Your task to perform on an android device: allow cookies in the chrome app Image 0: 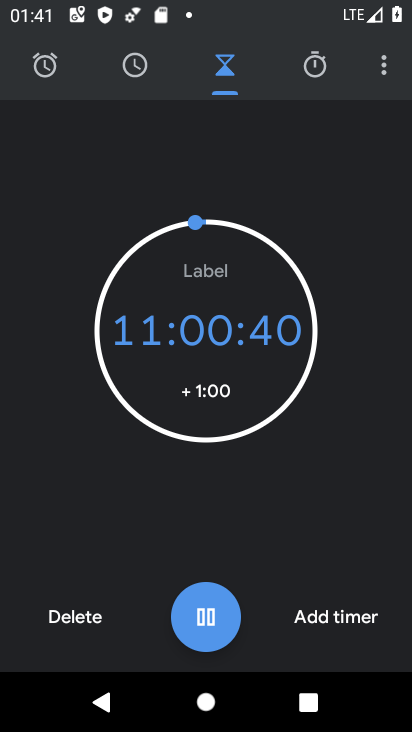
Step 0: press home button
Your task to perform on an android device: allow cookies in the chrome app Image 1: 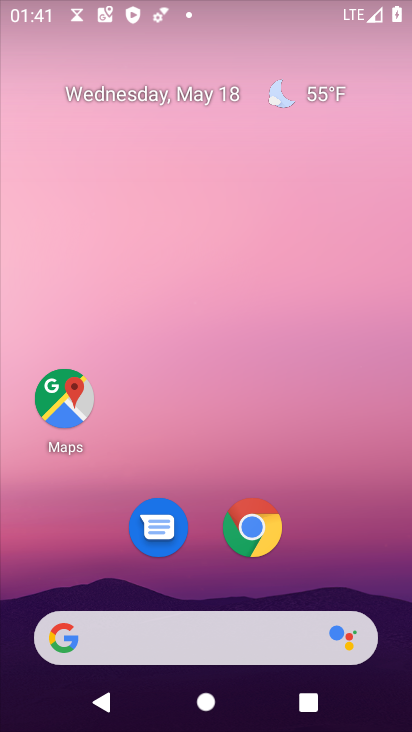
Step 1: click (253, 540)
Your task to perform on an android device: allow cookies in the chrome app Image 2: 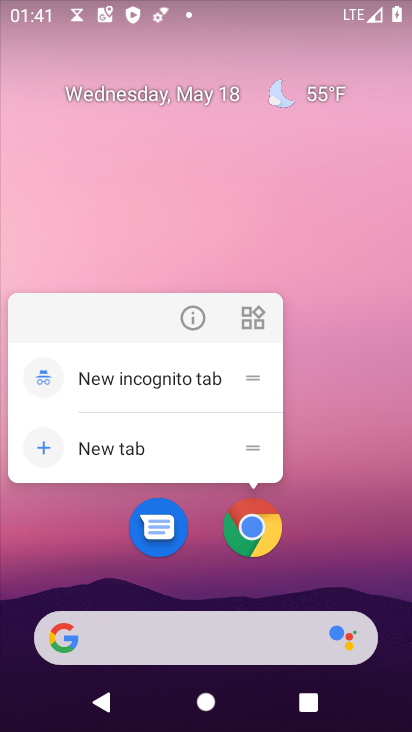
Step 2: click (265, 513)
Your task to perform on an android device: allow cookies in the chrome app Image 3: 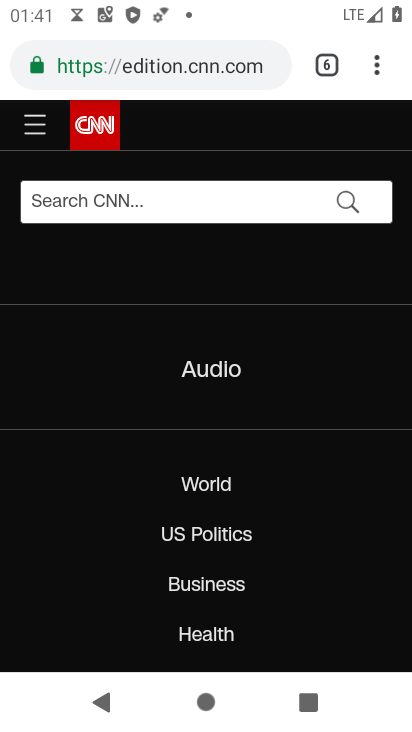
Step 3: click (375, 66)
Your task to perform on an android device: allow cookies in the chrome app Image 4: 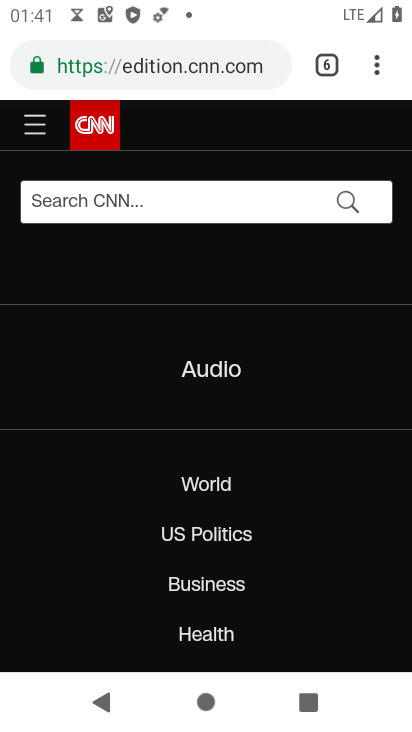
Step 4: click (365, 67)
Your task to perform on an android device: allow cookies in the chrome app Image 5: 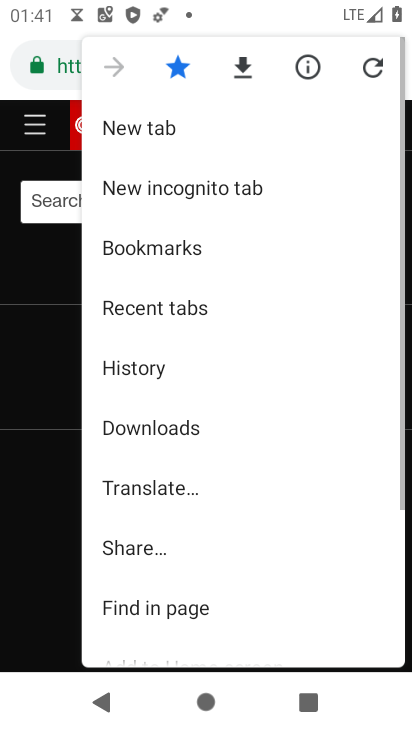
Step 5: drag from (277, 578) to (288, 151)
Your task to perform on an android device: allow cookies in the chrome app Image 6: 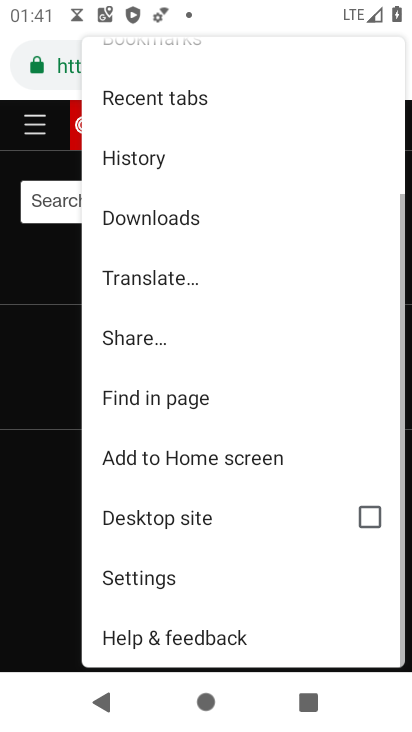
Step 6: click (183, 567)
Your task to perform on an android device: allow cookies in the chrome app Image 7: 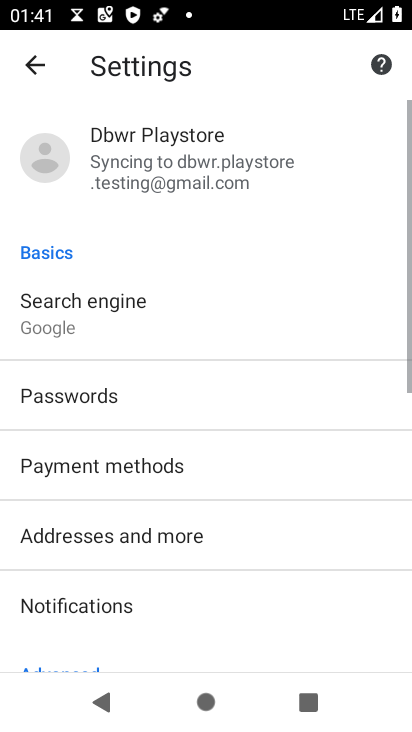
Step 7: drag from (180, 578) to (225, 145)
Your task to perform on an android device: allow cookies in the chrome app Image 8: 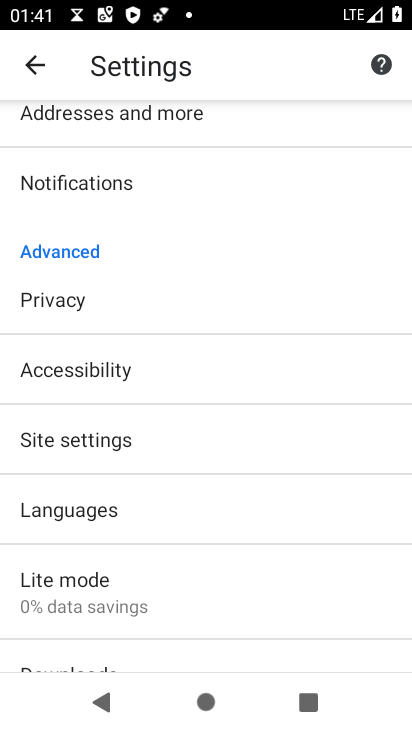
Step 8: click (136, 441)
Your task to perform on an android device: allow cookies in the chrome app Image 9: 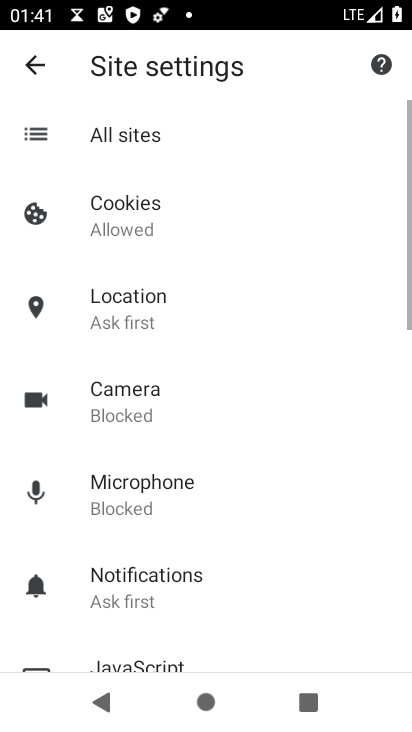
Step 9: click (160, 218)
Your task to perform on an android device: allow cookies in the chrome app Image 10: 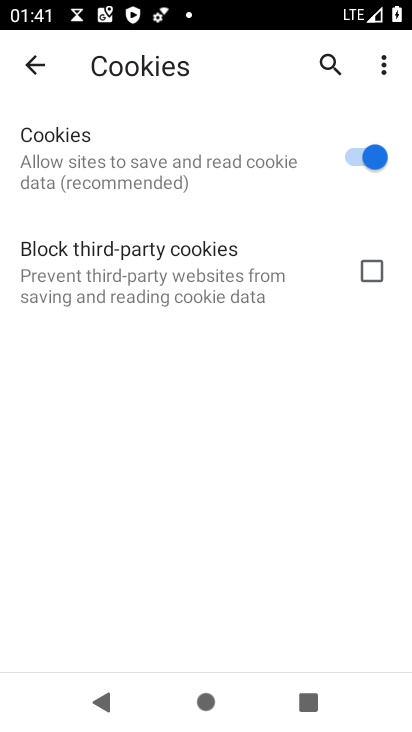
Step 10: task complete